Your task to perform on an android device: Check the news Image 0: 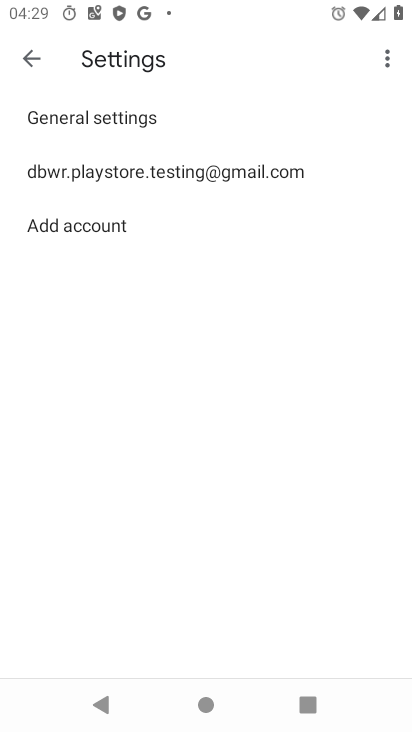
Step 0: press home button
Your task to perform on an android device: Check the news Image 1: 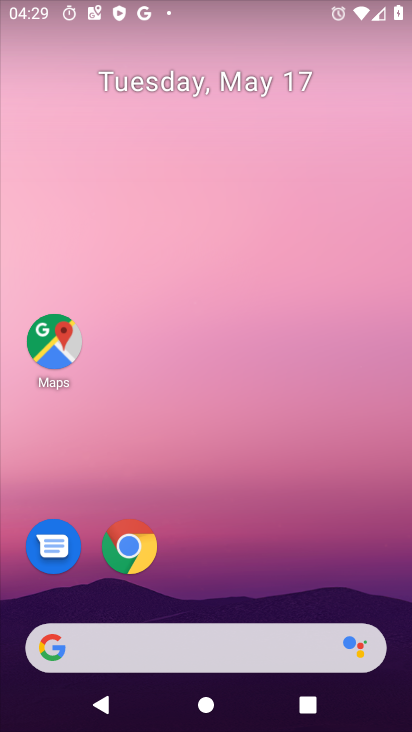
Step 1: drag from (407, 629) to (355, 342)
Your task to perform on an android device: Check the news Image 2: 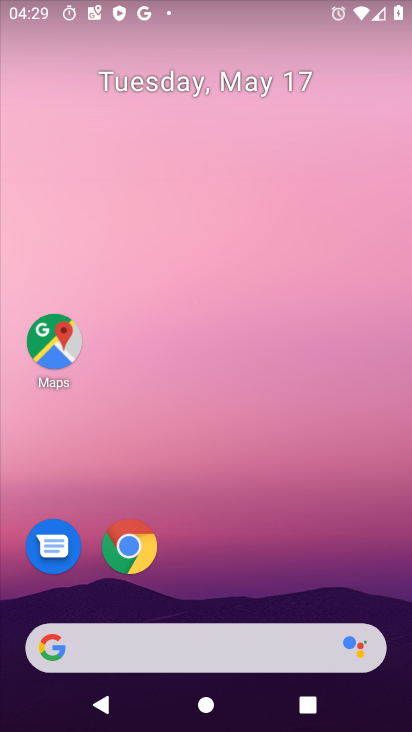
Step 2: drag from (403, 650) to (360, 267)
Your task to perform on an android device: Check the news Image 3: 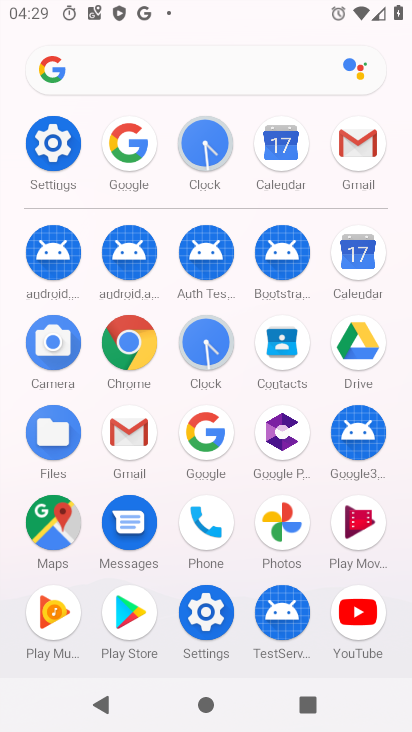
Step 3: click (198, 424)
Your task to perform on an android device: Check the news Image 4: 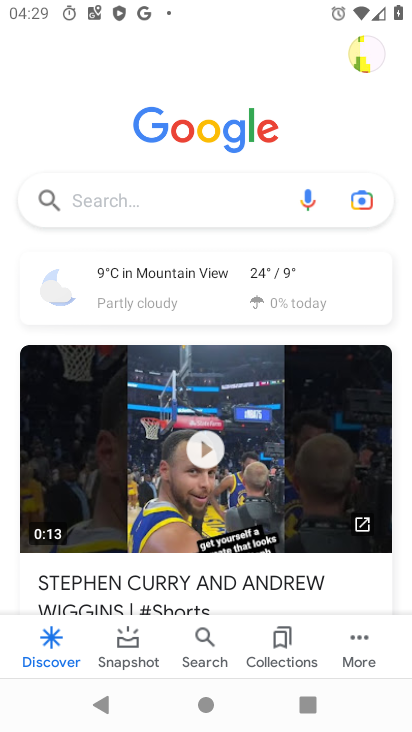
Step 4: task complete